Your task to perform on an android device: Search for Italian restaurants on Maps Image 0: 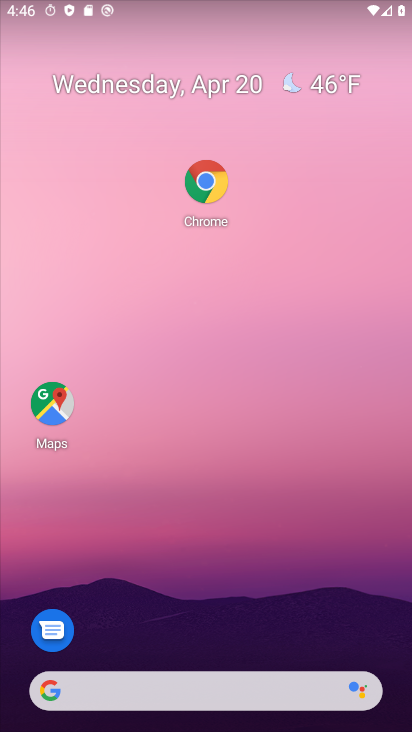
Step 0: click (37, 402)
Your task to perform on an android device: Search for Italian restaurants on Maps Image 1: 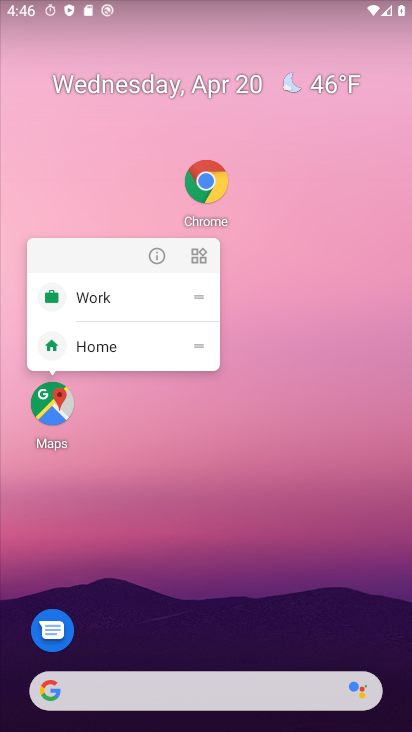
Step 1: click (51, 416)
Your task to perform on an android device: Search for Italian restaurants on Maps Image 2: 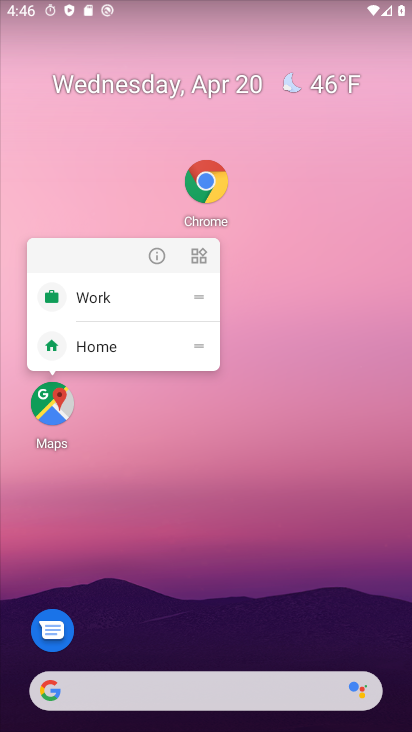
Step 2: click (60, 400)
Your task to perform on an android device: Search for Italian restaurants on Maps Image 3: 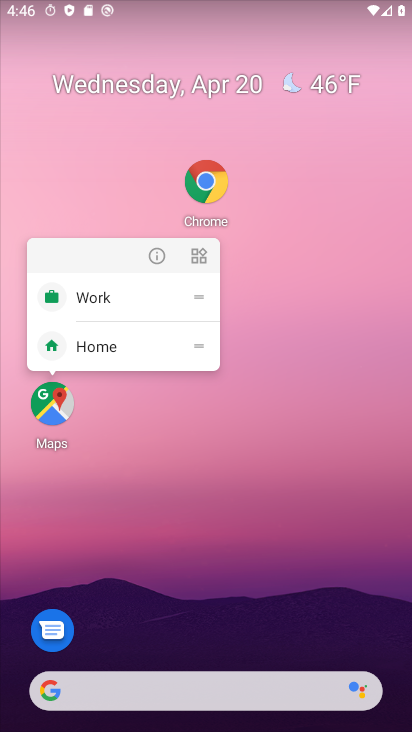
Step 3: click (55, 402)
Your task to perform on an android device: Search for Italian restaurants on Maps Image 4: 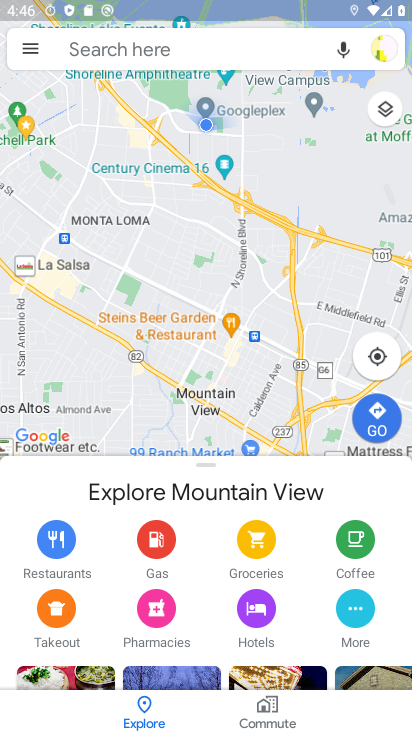
Step 4: click (157, 48)
Your task to perform on an android device: Search for Italian restaurants on Maps Image 5: 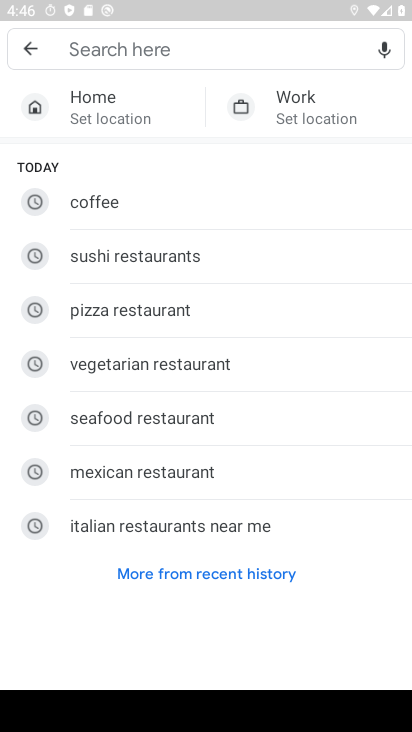
Step 5: click (86, 522)
Your task to perform on an android device: Search for Italian restaurants on Maps Image 6: 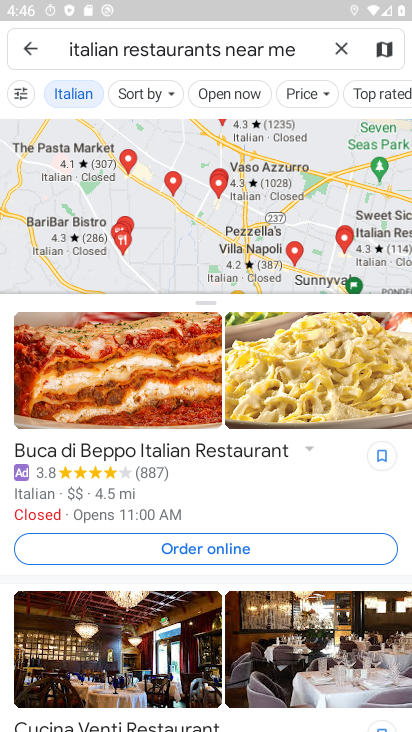
Step 6: task complete